Your task to perform on an android device: Open eBay Image 0: 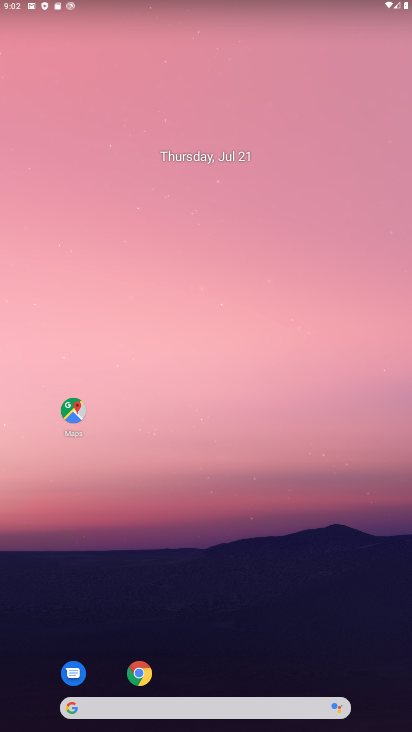
Step 0: click (364, 120)
Your task to perform on an android device: Open eBay Image 1: 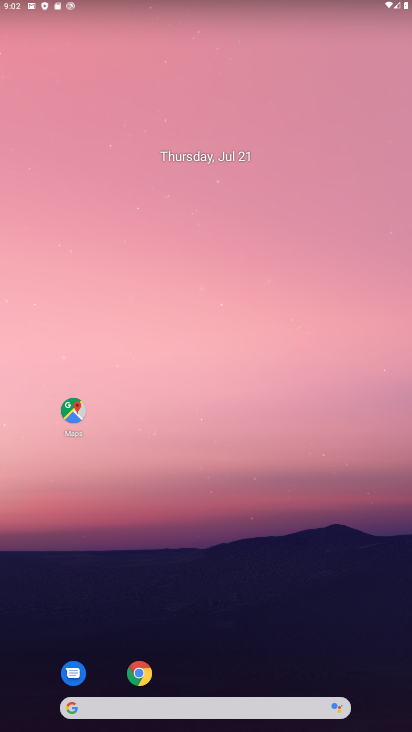
Step 1: drag from (187, 633) to (326, 39)
Your task to perform on an android device: Open eBay Image 2: 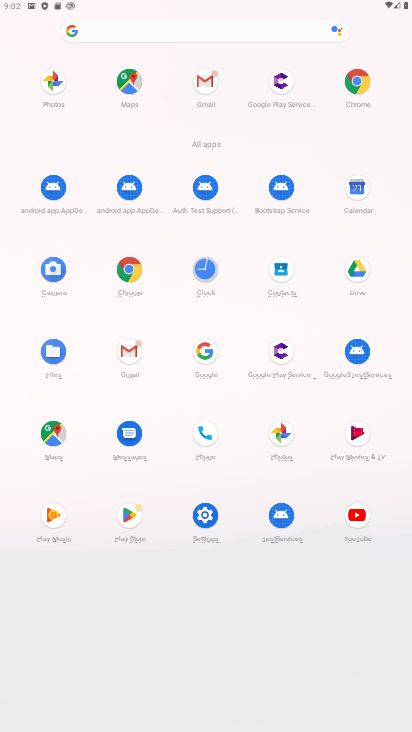
Step 2: click (164, 23)
Your task to perform on an android device: Open eBay Image 3: 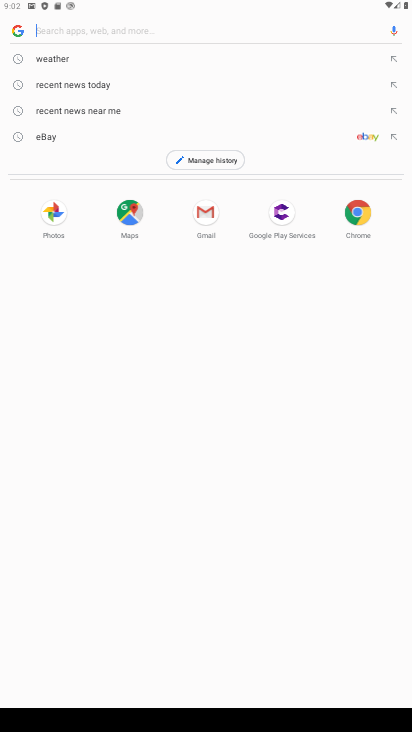
Step 3: click (60, 137)
Your task to perform on an android device: Open eBay Image 4: 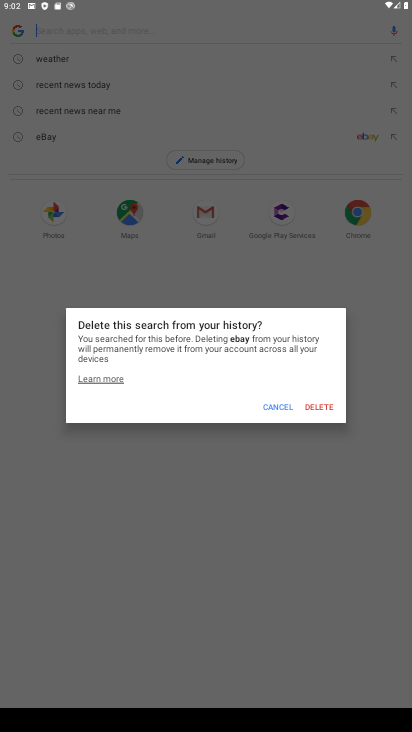
Step 4: click (229, 461)
Your task to perform on an android device: Open eBay Image 5: 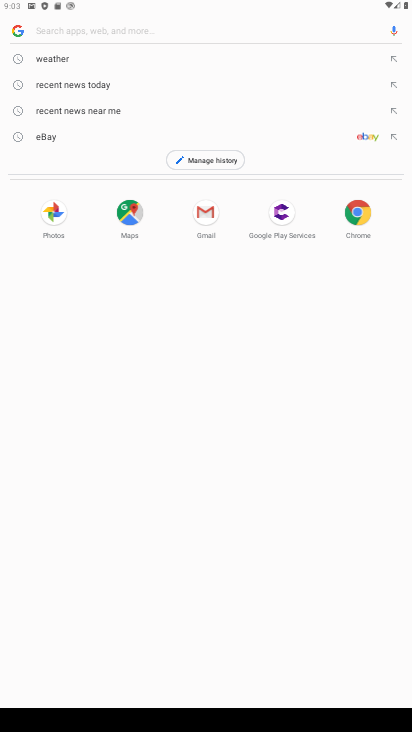
Step 5: click (30, 129)
Your task to perform on an android device: Open eBay Image 6: 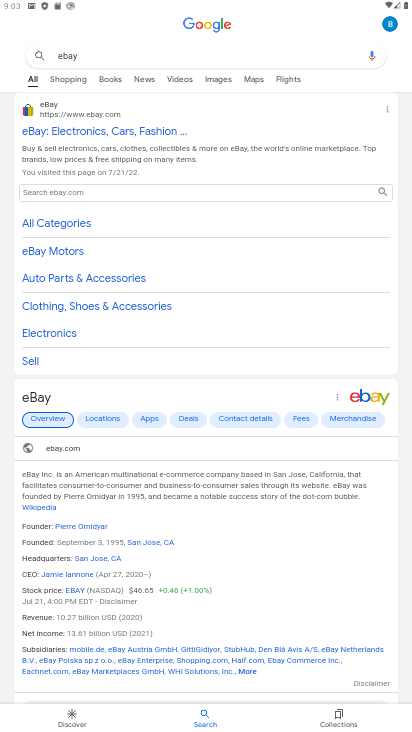
Step 6: click (59, 126)
Your task to perform on an android device: Open eBay Image 7: 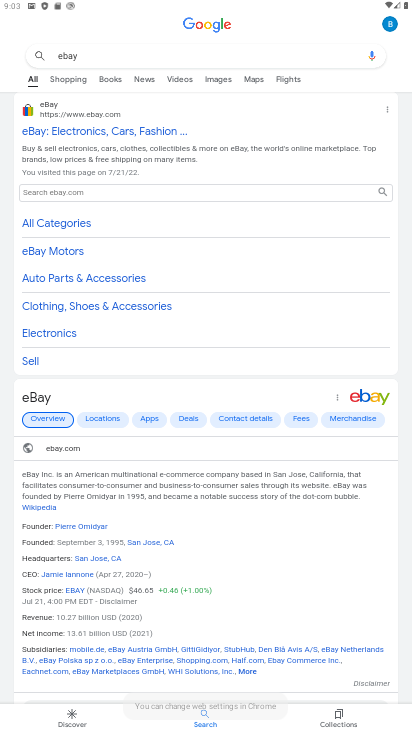
Step 7: task complete